Your task to perform on an android device: Open Reddit.com Image 0: 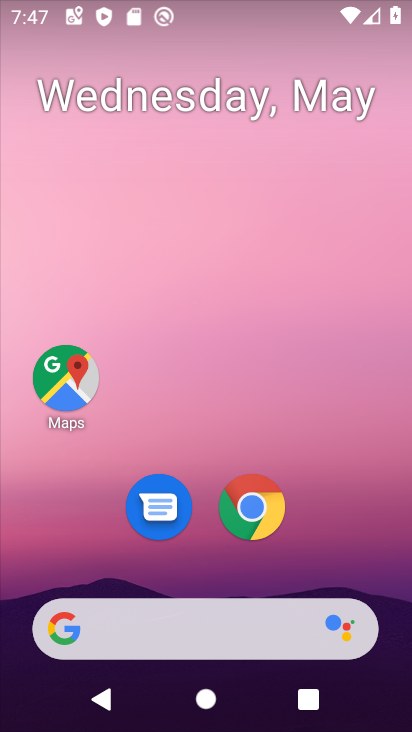
Step 0: click (251, 505)
Your task to perform on an android device: Open Reddit.com Image 1: 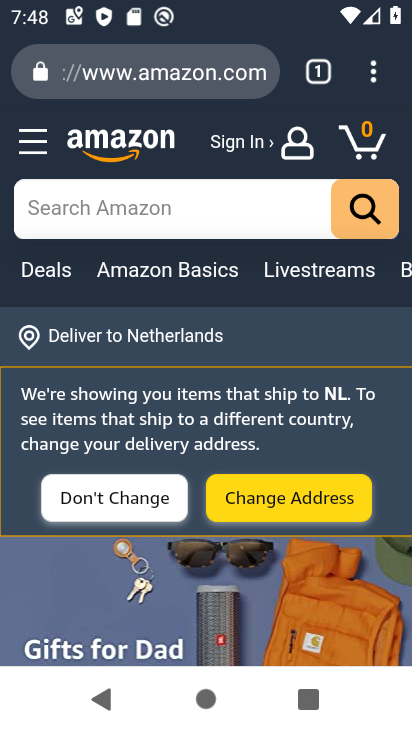
Step 1: click (364, 76)
Your task to perform on an android device: Open Reddit.com Image 2: 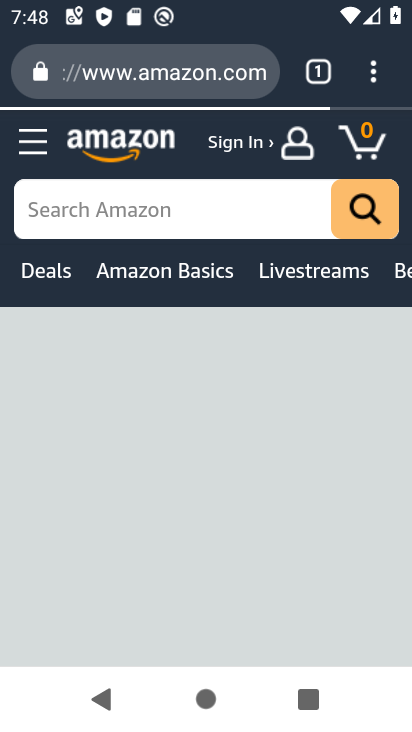
Step 2: click (372, 73)
Your task to perform on an android device: Open Reddit.com Image 3: 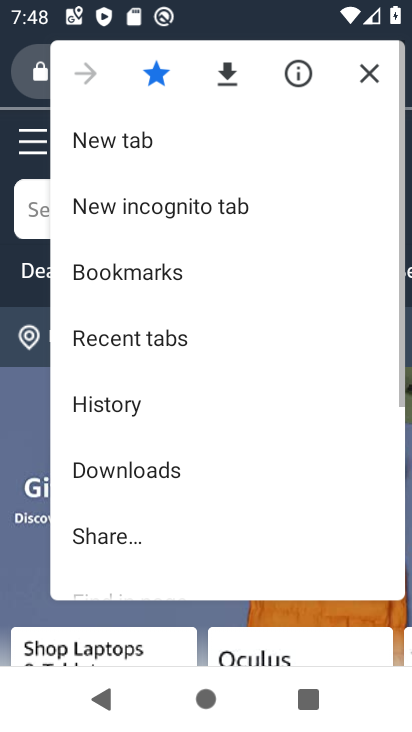
Step 3: click (158, 114)
Your task to perform on an android device: Open Reddit.com Image 4: 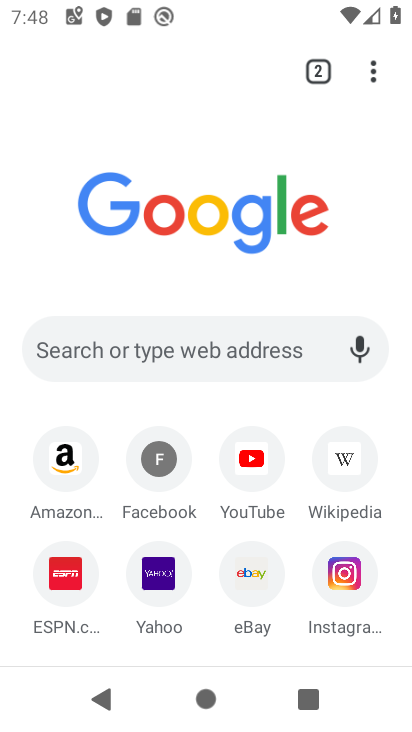
Step 4: click (135, 337)
Your task to perform on an android device: Open Reddit.com Image 5: 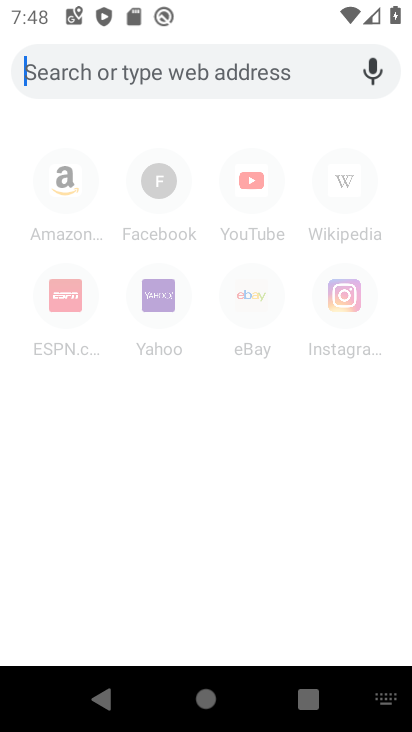
Step 5: type "Reddit.com"
Your task to perform on an android device: Open Reddit.com Image 6: 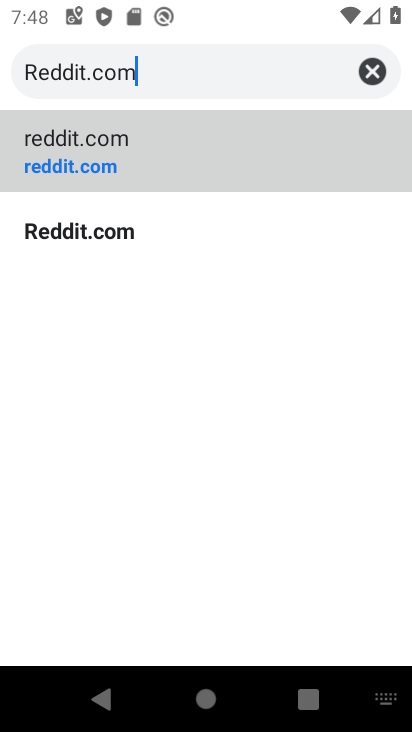
Step 6: click (231, 146)
Your task to perform on an android device: Open Reddit.com Image 7: 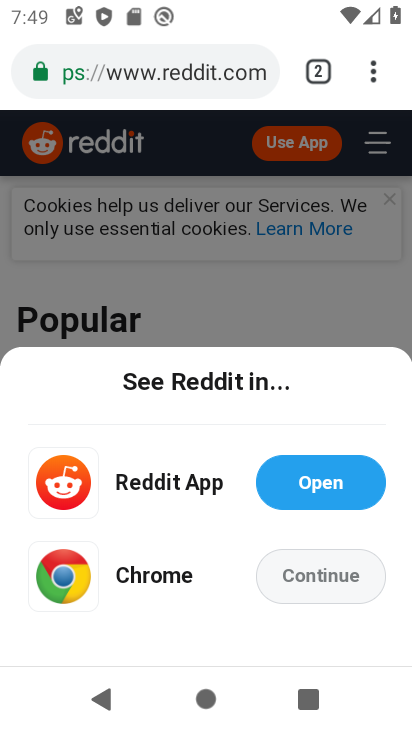
Step 7: task complete